Your task to perform on an android device: turn on sleep mode Image 0: 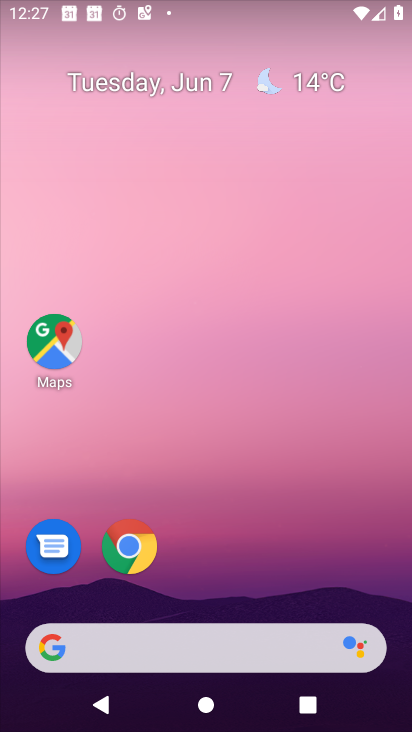
Step 0: drag from (243, 599) to (360, 218)
Your task to perform on an android device: turn on sleep mode Image 1: 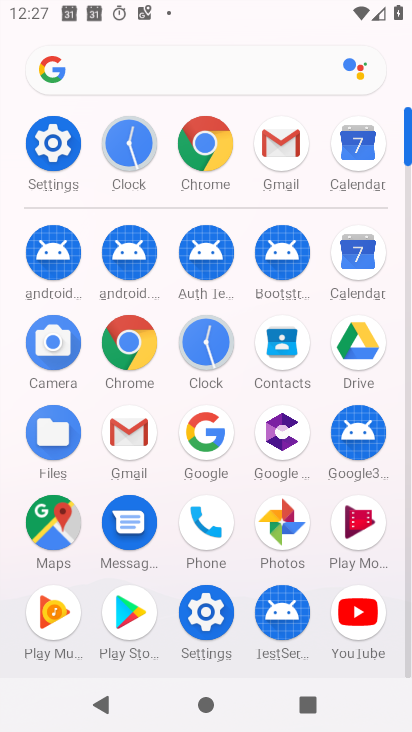
Step 1: click (49, 152)
Your task to perform on an android device: turn on sleep mode Image 2: 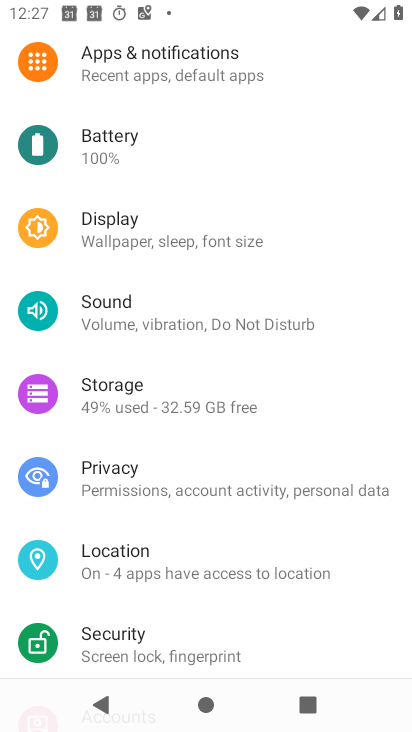
Step 2: drag from (272, 107) to (251, 429)
Your task to perform on an android device: turn on sleep mode Image 3: 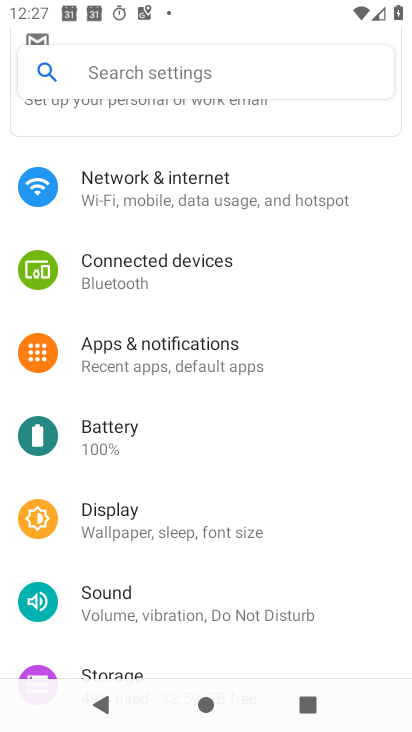
Step 3: click (213, 63)
Your task to perform on an android device: turn on sleep mode Image 4: 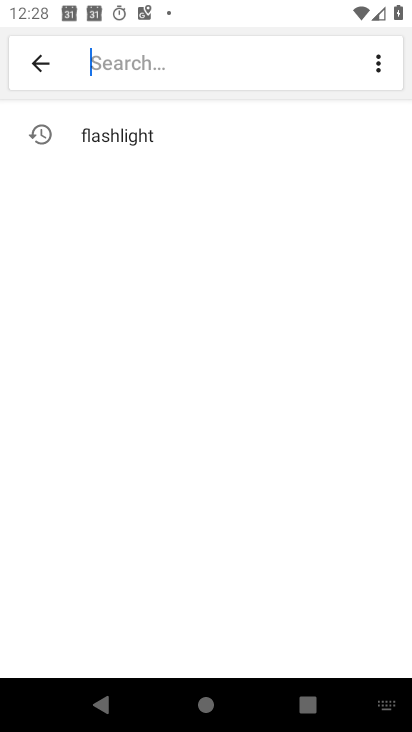
Step 4: type "sleep mode"
Your task to perform on an android device: turn on sleep mode Image 5: 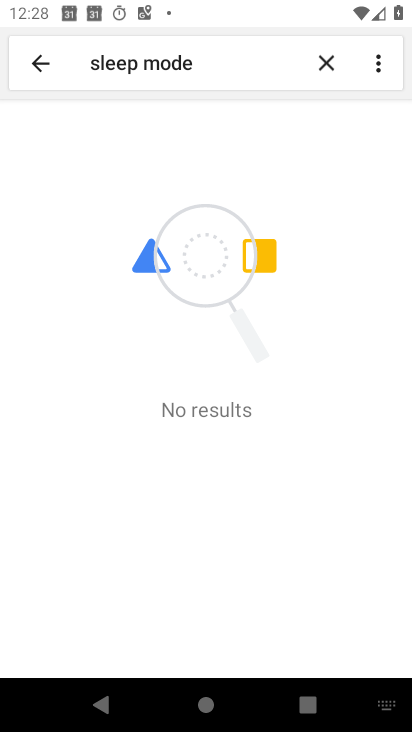
Step 5: task complete